Your task to perform on an android device: Open my contact list Image 0: 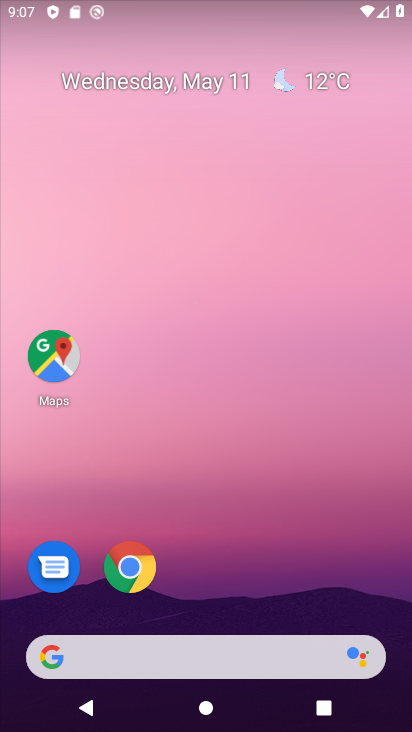
Step 0: drag from (132, 621) to (139, 254)
Your task to perform on an android device: Open my contact list Image 1: 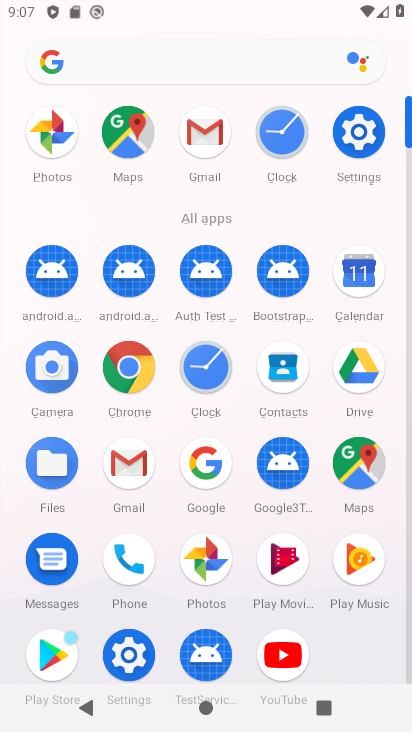
Step 1: click (272, 374)
Your task to perform on an android device: Open my contact list Image 2: 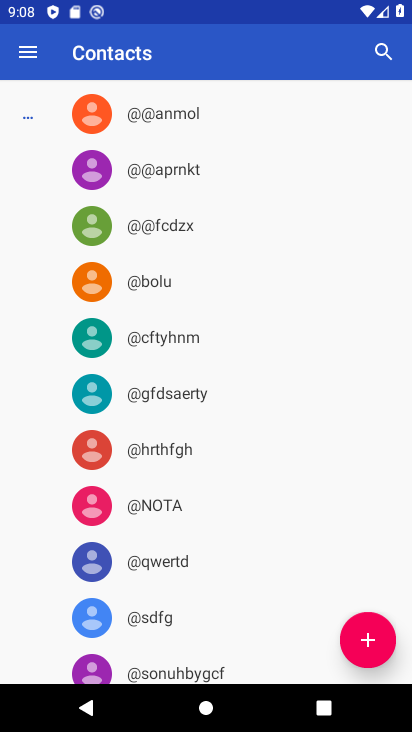
Step 2: task complete